Your task to perform on an android device: Search for vegetarian restaurants on Maps Image 0: 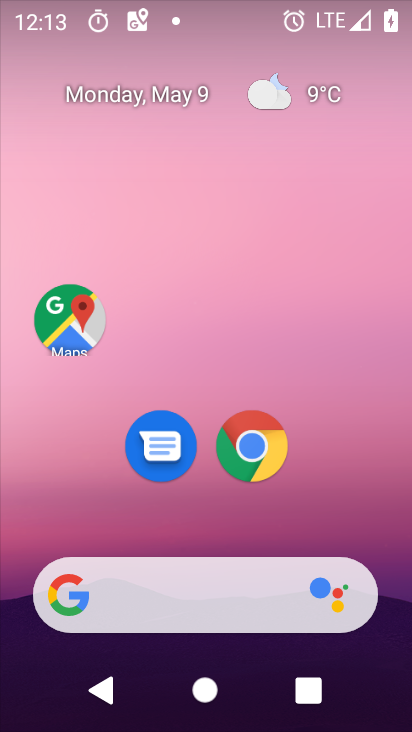
Step 0: click (69, 326)
Your task to perform on an android device: Search for vegetarian restaurants on Maps Image 1: 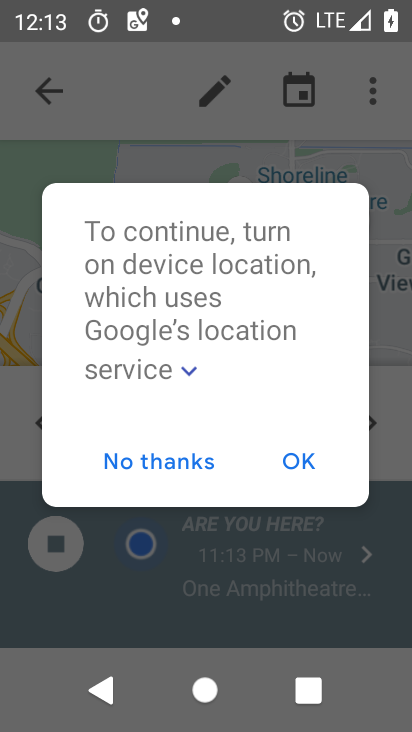
Step 1: click (176, 457)
Your task to perform on an android device: Search for vegetarian restaurants on Maps Image 2: 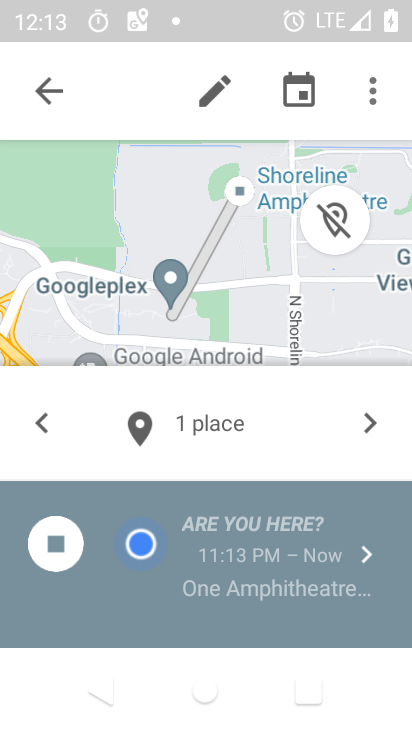
Step 2: click (45, 96)
Your task to perform on an android device: Search for vegetarian restaurants on Maps Image 3: 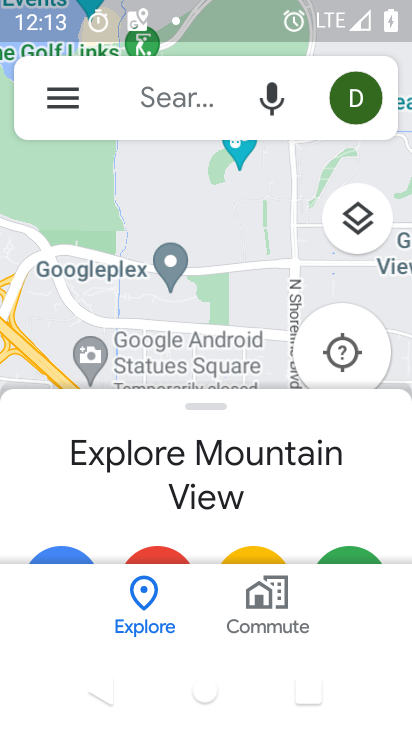
Step 3: click (141, 106)
Your task to perform on an android device: Search for vegetarian restaurants on Maps Image 4: 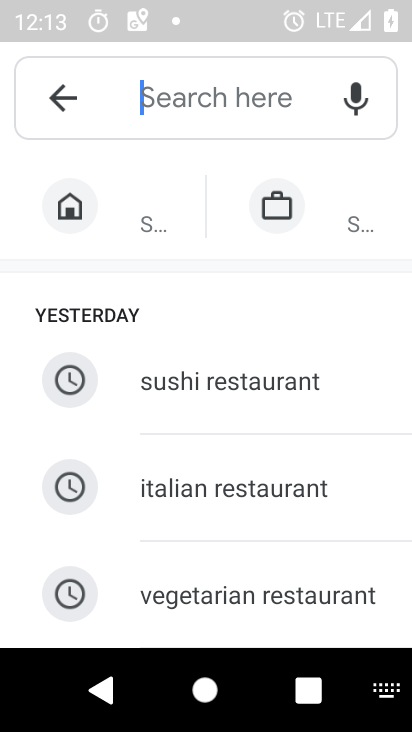
Step 4: click (196, 98)
Your task to perform on an android device: Search for vegetarian restaurants on Maps Image 5: 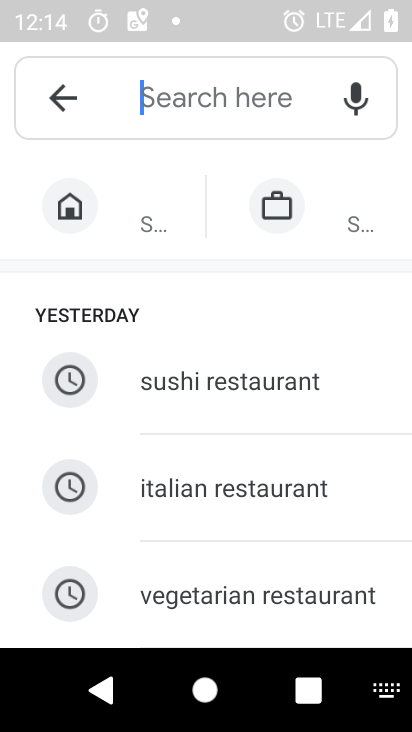
Step 5: type "vegetarian restaurant"
Your task to perform on an android device: Search for vegetarian restaurants on Maps Image 6: 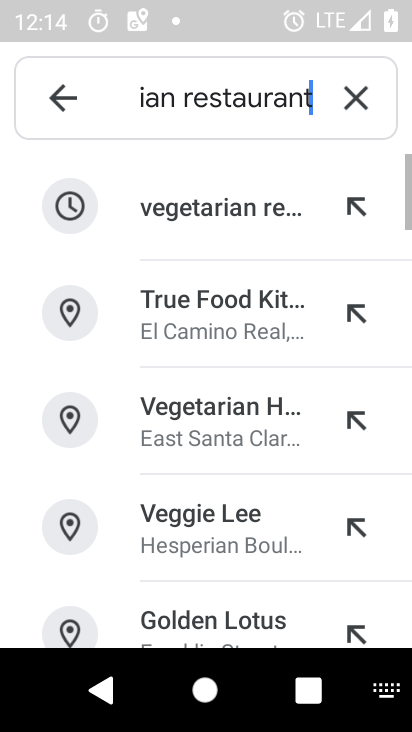
Step 6: click (184, 210)
Your task to perform on an android device: Search for vegetarian restaurants on Maps Image 7: 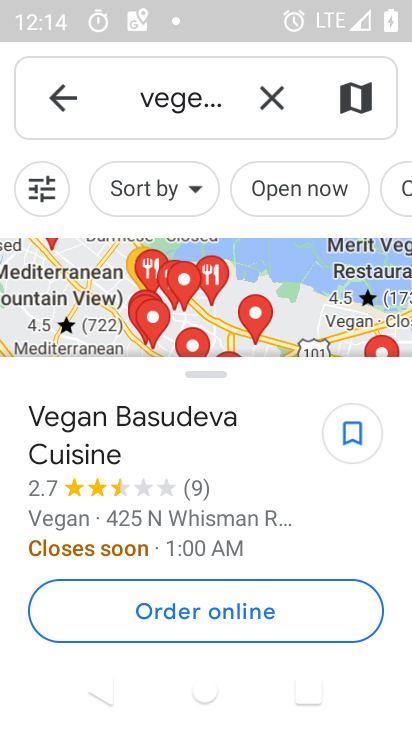
Step 7: task complete